Your task to perform on an android device: Open the Play Movies app and select the watchlist tab. Image 0: 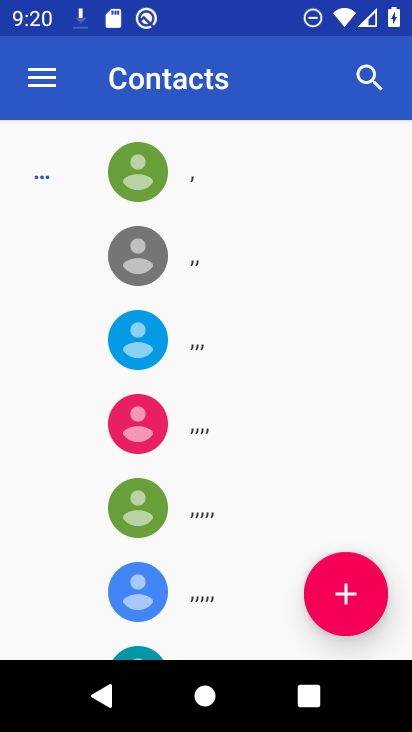
Step 0: press home button
Your task to perform on an android device: Open the Play Movies app and select the watchlist tab. Image 1: 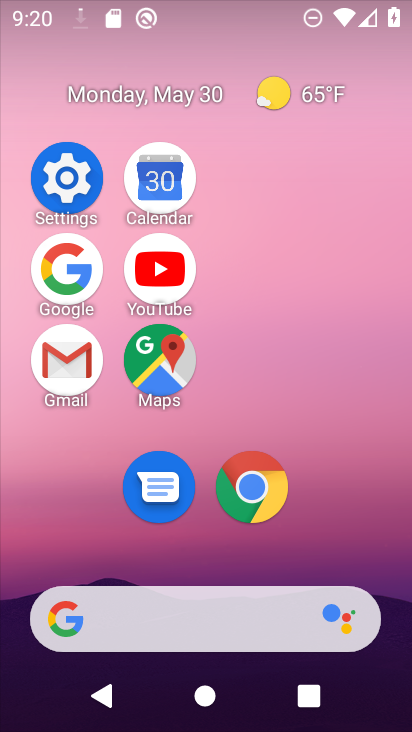
Step 1: drag from (277, 564) to (281, 102)
Your task to perform on an android device: Open the Play Movies app and select the watchlist tab. Image 2: 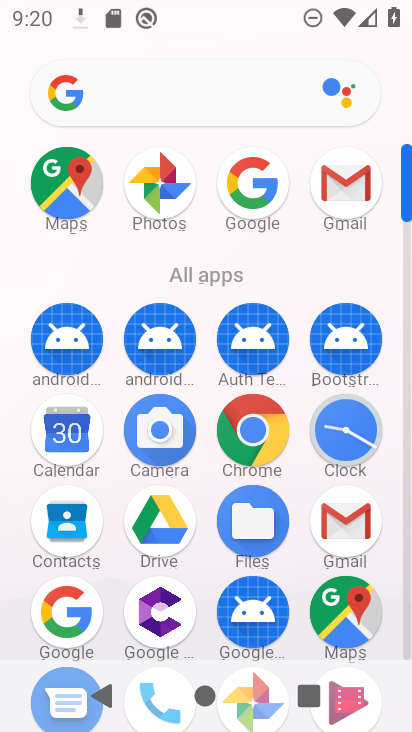
Step 2: drag from (278, 619) to (238, 236)
Your task to perform on an android device: Open the Play Movies app and select the watchlist tab. Image 3: 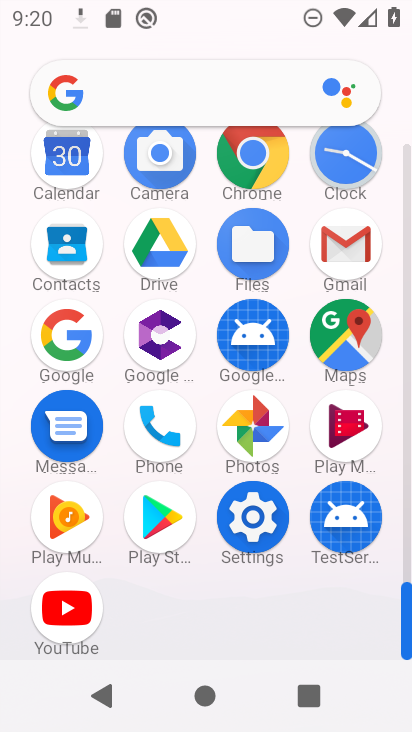
Step 3: click (331, 450)
Your task to perform on an android device: Open the Play Movies app and select the watchlist tab. Image 4: 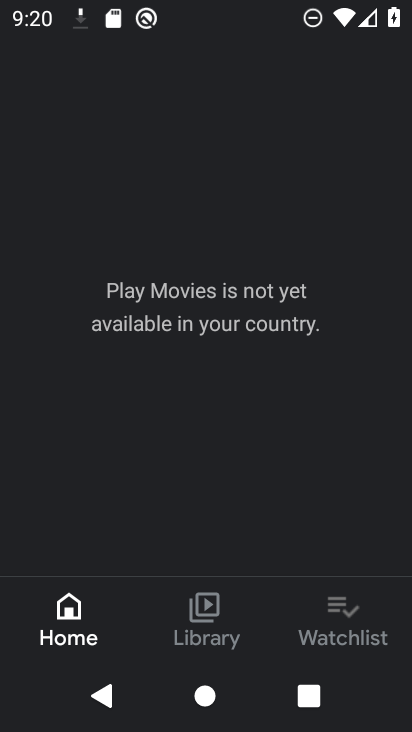
Step 4: click (356, 618)
Your task to perform on an android device: Open the Play Movies app and select the watchlist tab. Image 5: 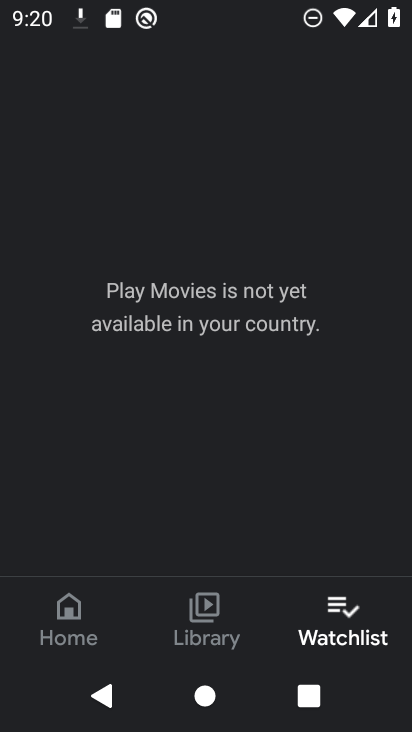
Step 5: task complete